Your task to perform on an android device: turn notification dots off Image 0: 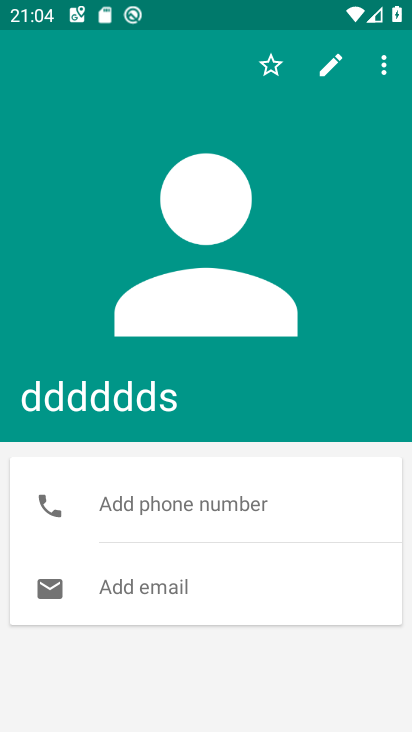
Step 0: press home button
Your task to perform on an android device: turn notification dots off Image 1: 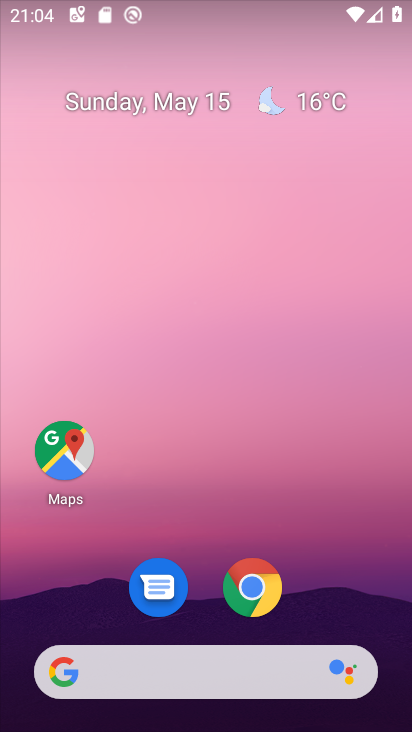
Step 1: drag from (342, 574) to (335, 66)
Your task to perform on an android device: turn notification dots off Image 2: 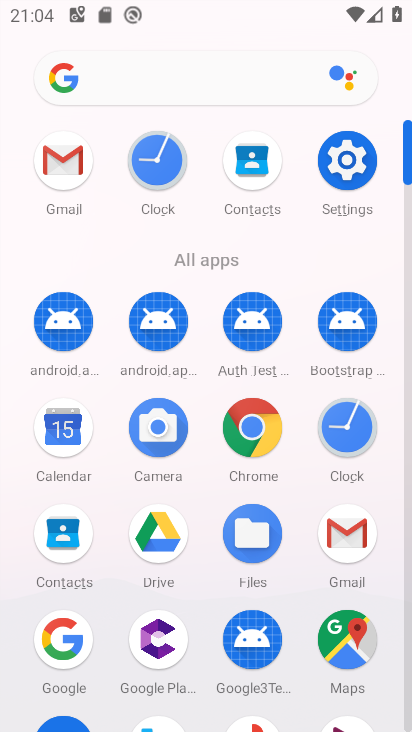
Step 2: click (348, 155)
Your task to perform on an android device: turn notification dots off Image 3: 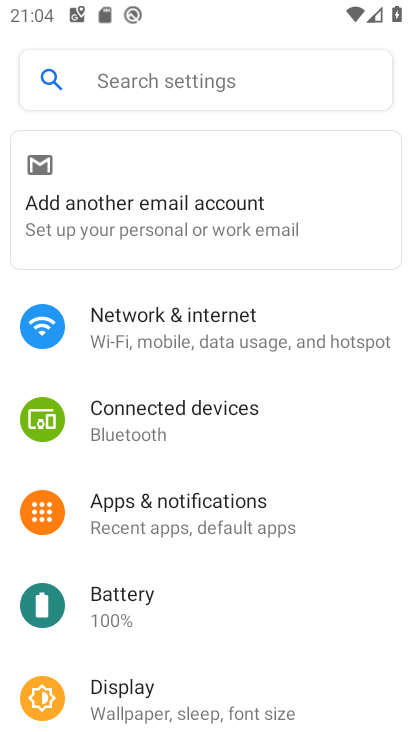
Step 3: click (249, 505)
Your task to perform on an android device: turn notification dots off Image 4: 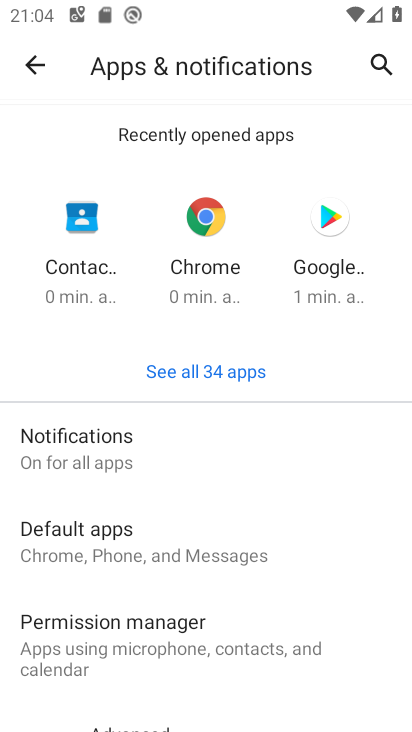
Step 4: click (99, 445)
Your task to perform on an android device: turn notification dots off Image 5: 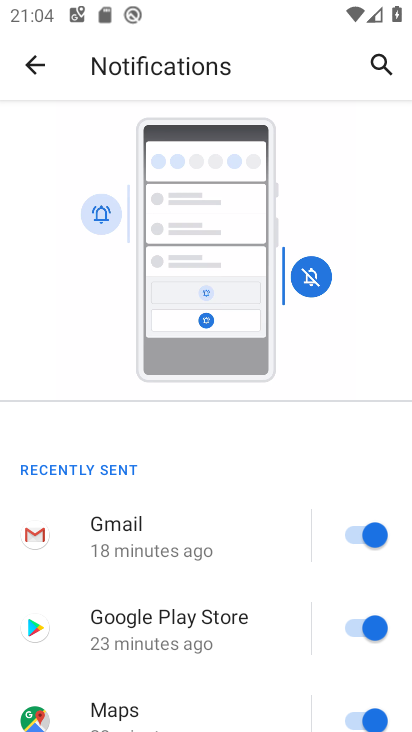
Step 5: drag from (273, 654) to (352, 68)
Your task to perform on an android device: turn notification dots off Image 6: 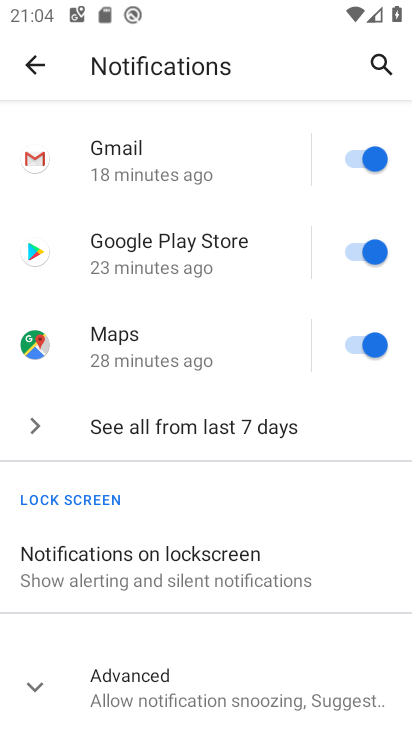
Step 6: click (207, 693)
Your task to perform on an android device: turn notification dots off Image 7: 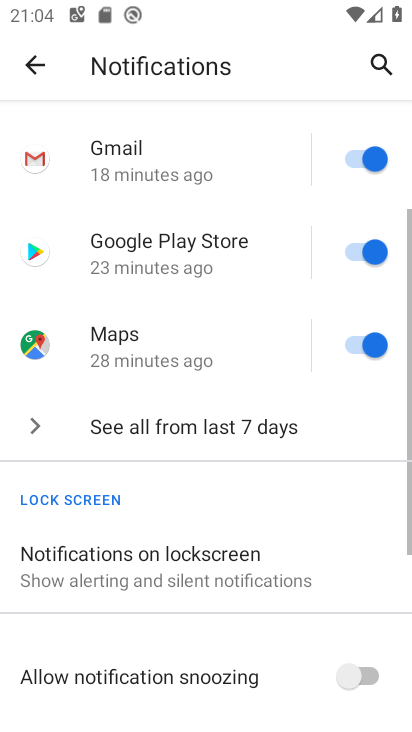
Step 7: drag from (206, 585) to (247, 85)
Your task to perform on an android device: turn notification dots off Image 8: 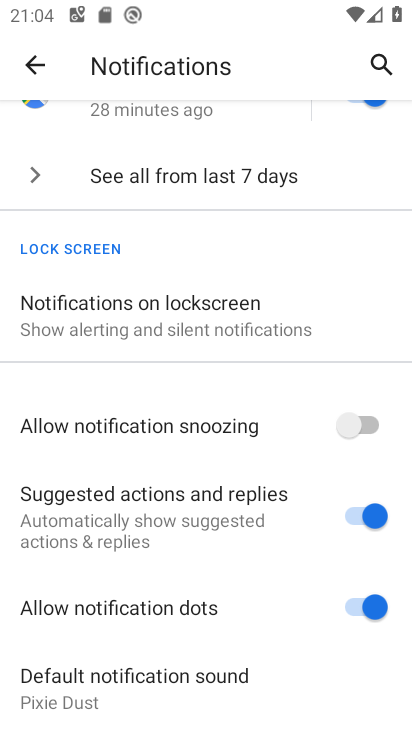
Step 8: click (359, 608)
Your task to perform on an android device: turn notification dots off Image 9: 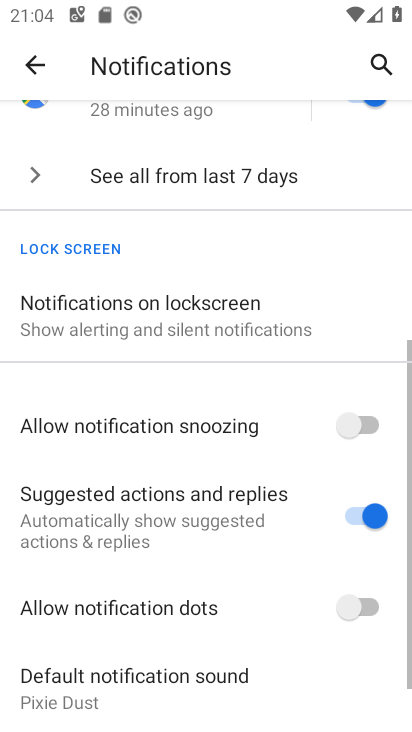
Step 9: task complete